Your task to perform on an android device: change your default location settings in chrome Image 0: 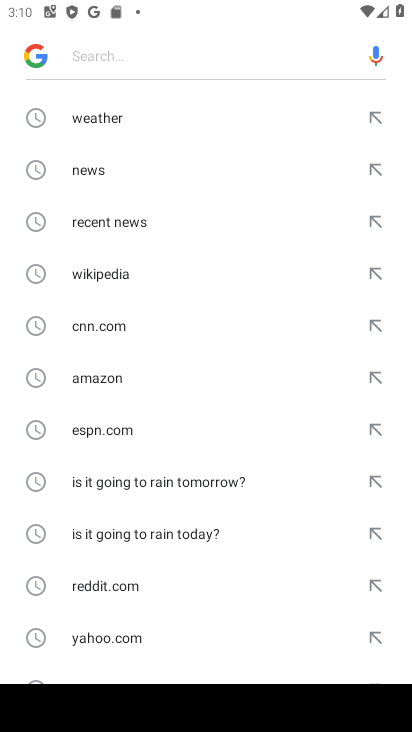
Step 0: press home button
Your task to perform on an android device: change your default location settings in chrome Image 1: 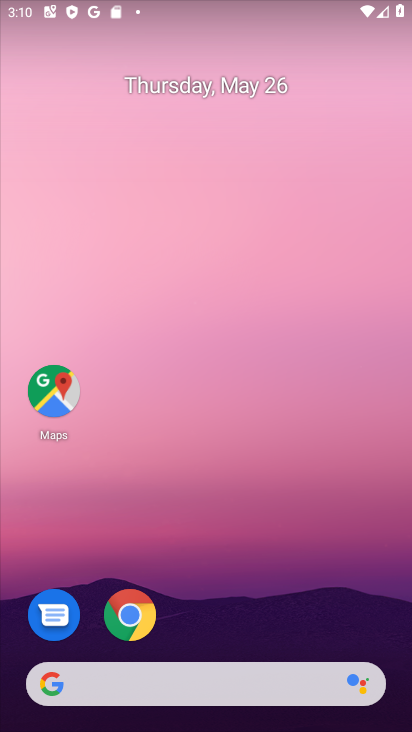
Step 1: click (145, 619)
Your task to perform on an android device: change your default location settings in chrome Image 2: 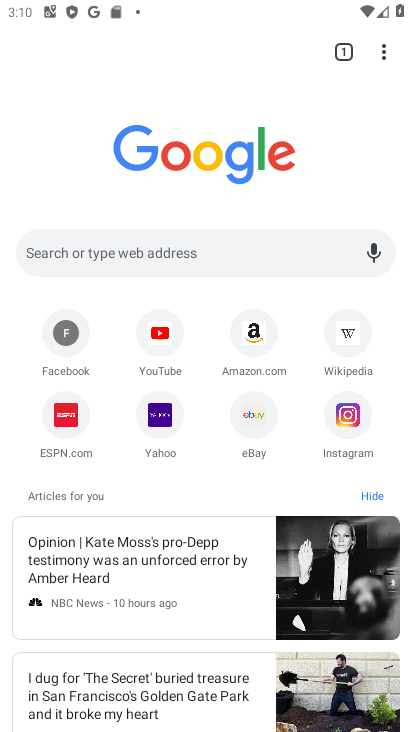
Step 2: click (382, 54)
Your task to perform on an android device: change your default location settings in chrome Image 3: 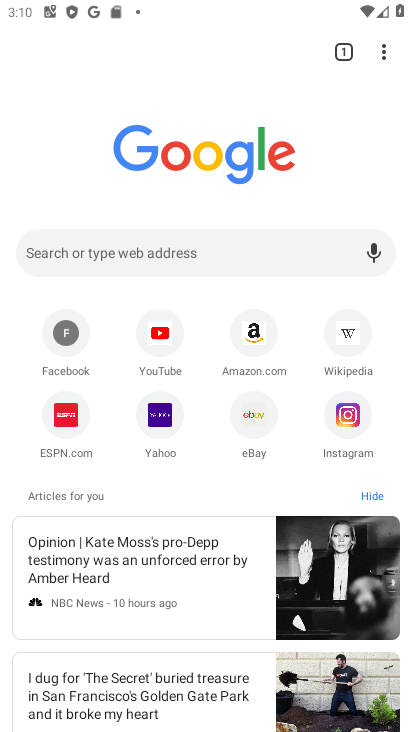
Step 3: click (387, 47)
Your task to perform on an android device: change your default location settings in chrome Image 4: 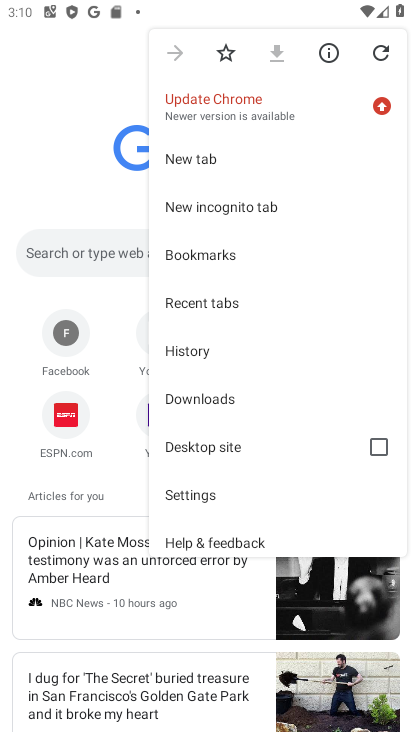
Step 4: click (197, 497)
Your task to perform on an android device: change your default location settings in chrome Image 5: 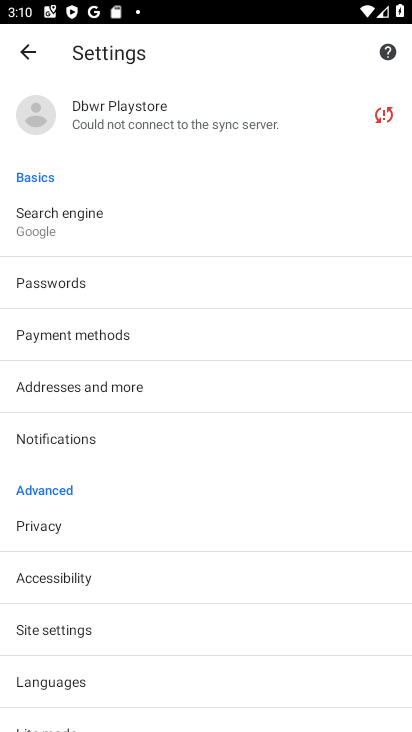
Step 5: click (66, 642)
Your task to perform on an android device: change your default location settings in chrome Image 6: 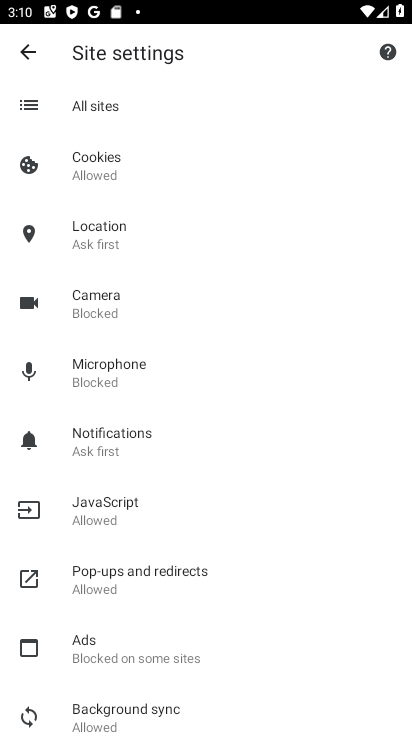
Step 6: click (85, 225)
Your task to perform on an android device: change your default location settings in chrome Image 7: 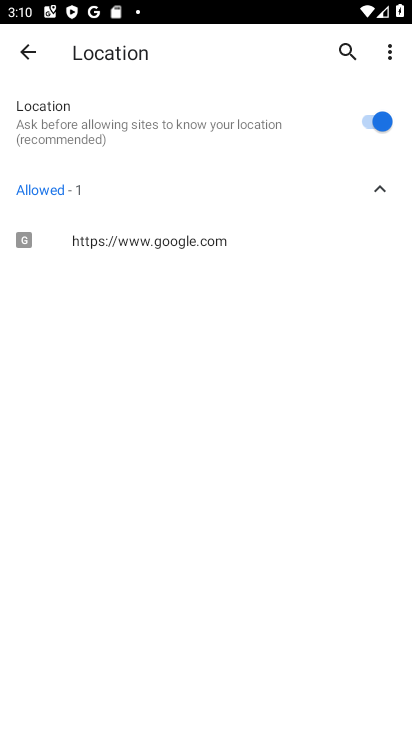
Step 7: click (367, 120)
Your task to perform on an android device: change your default location settings in chrome Image 8: 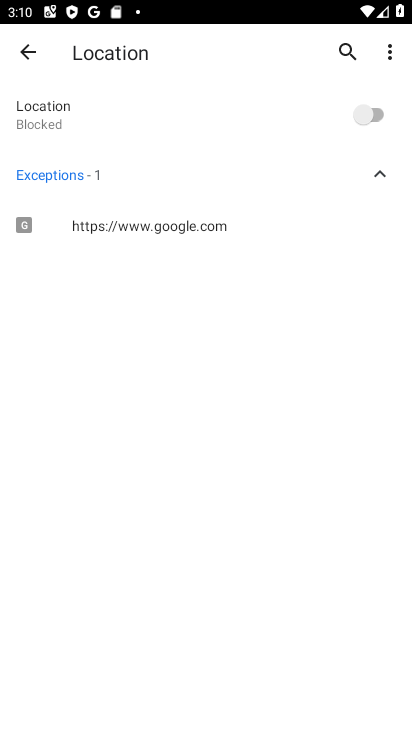
Step 8: task complete